Your task to perform on an android device: find which apps use the phone's location Image 0: 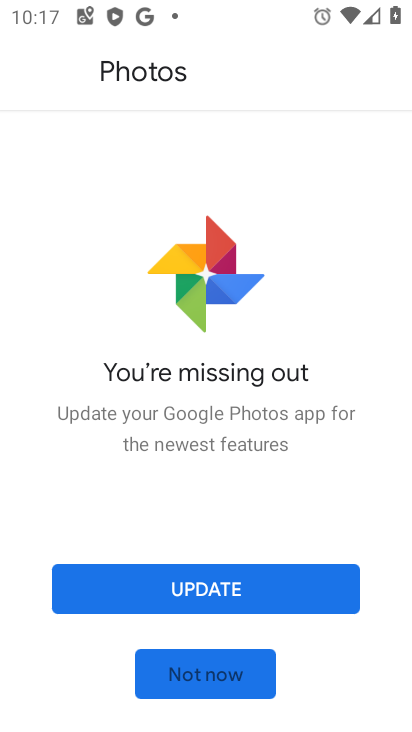
Step 0: press home button
Your task to perform on an android device: find which apps use the phone's location Image 1: 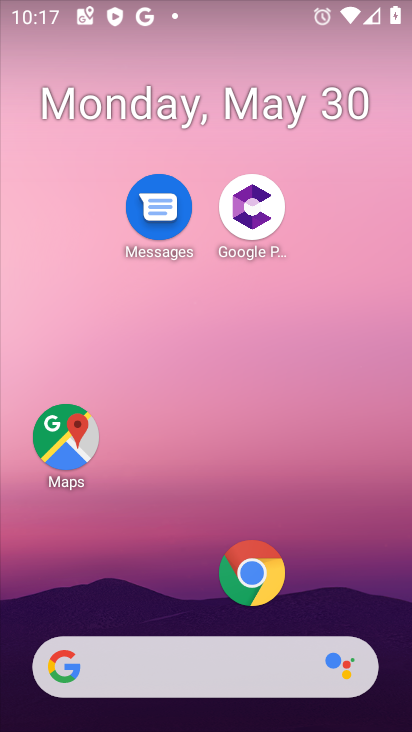
Step 1: drag from (229, 618) to (233, 74)
Your task to perform on an android device: find which apps use the phone's location Image 2: 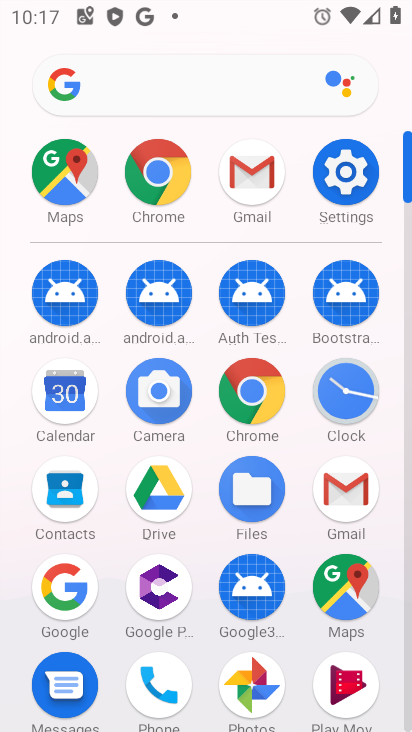
Step 2: drag from (191, 539) to (288, 227)
Your task to perform on an android device: find which apps use the phone's location Image 3: 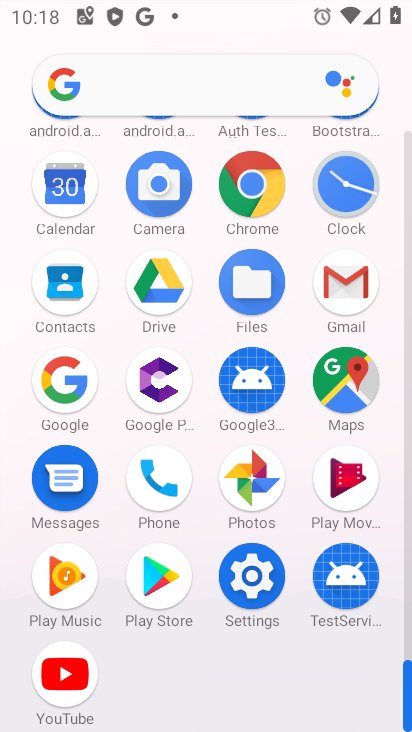
Step 3: click (247, 577)
Your task to perform on an android device: find which apps use the phone's location Image 4: 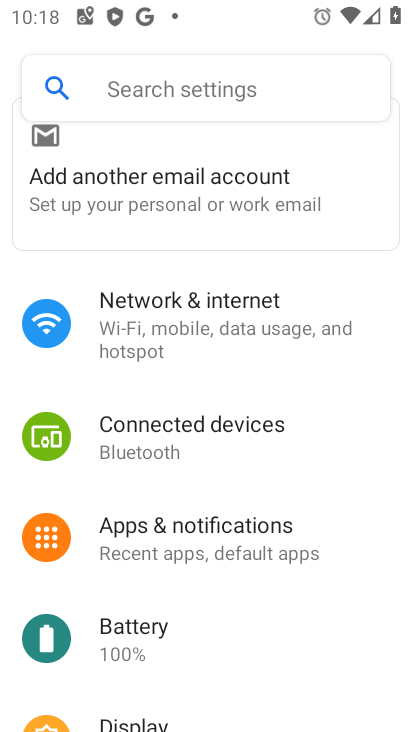
Step 4: drag from (194, 495) to (198, 192)
Your task to perform on an android device: find which apps use the phone's location Image 5: 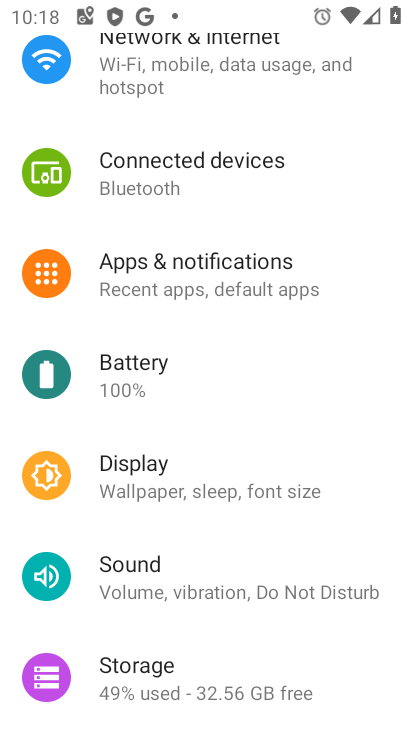
Step 5: drag from (185, 591) to (207, 237)
Your task to perform on an android device: find which apps use the phone's location Image 6: 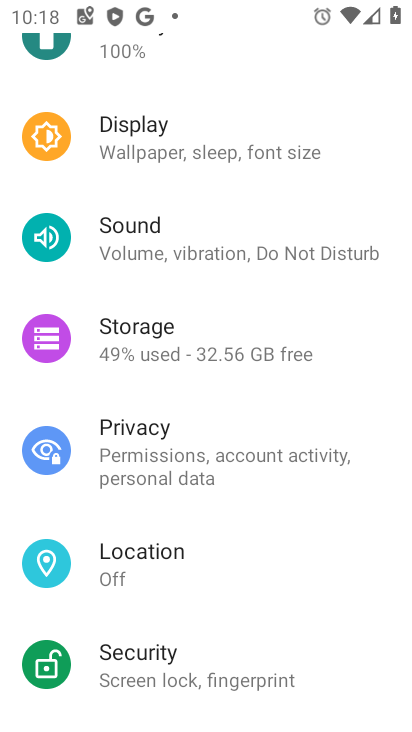
Step 6: click (123, 582)
Your task to perform on an android device: find which apps use the phone's location Image 7: 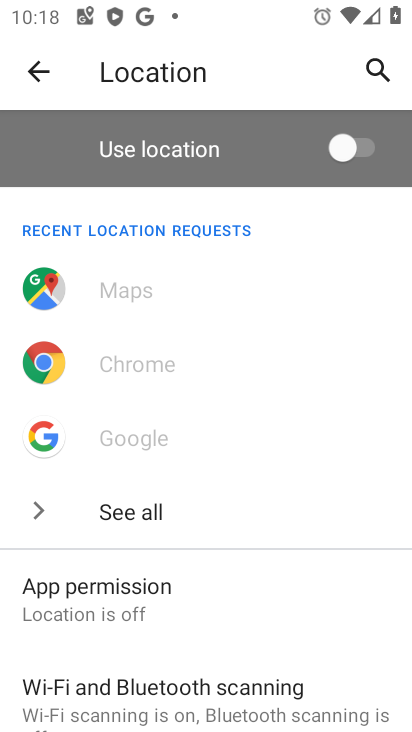
Step 7: drag from (184, 621) to (256, 388)
Your task to perform on an android device: find which apps use the phone's location Image 8: 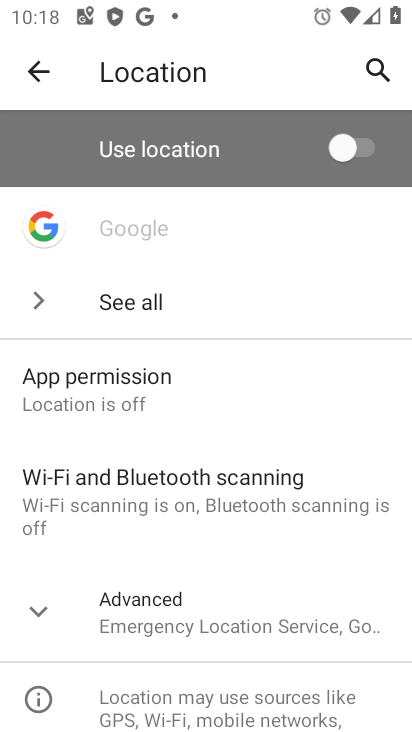
Step 8: click (167, 387)
Your task to perform on an android device: find which apps use the phone's location Image 9: 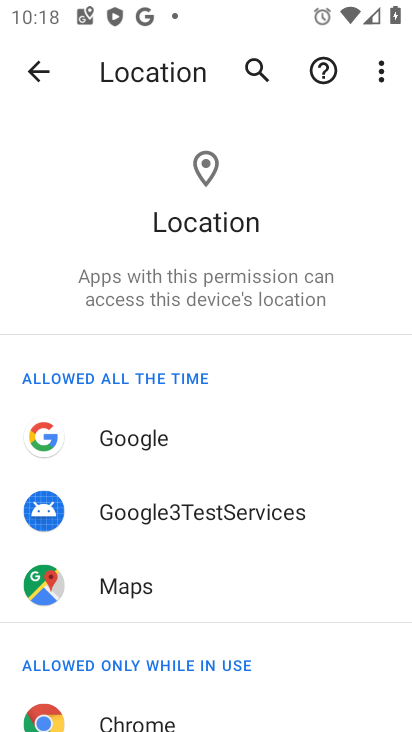
Step 9: task complete